Your task to perform on an android device: Go to Yahoo.com Image 0: 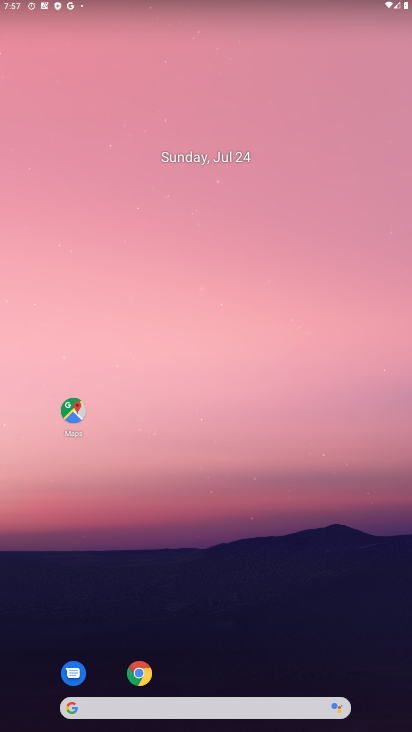
Step 0: drag from (27, 703) to (222, 65)
Your task to perform on an android device: Go to Yahoo.com Image 1: 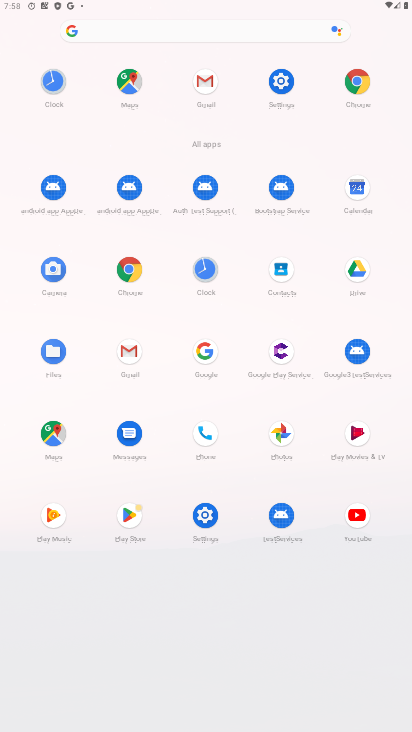
Step 1: click (142, 30)
Your task to perform on an android device: Go to Yahoo.com Image 2: 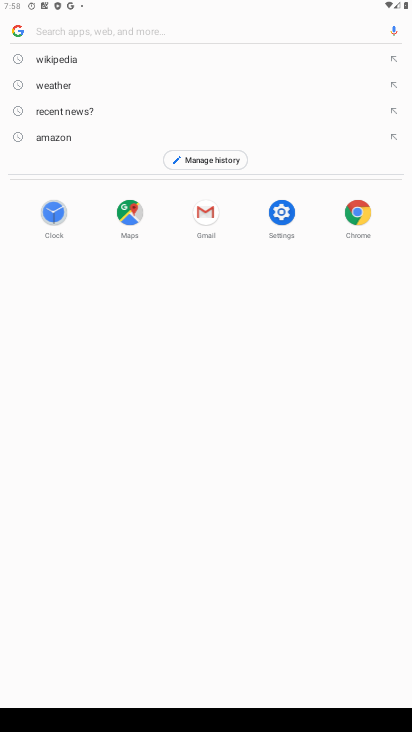
Step 2: type "Yahoo.com"
Your task to perform on an android device: Go to Yahoo.com Image 3: 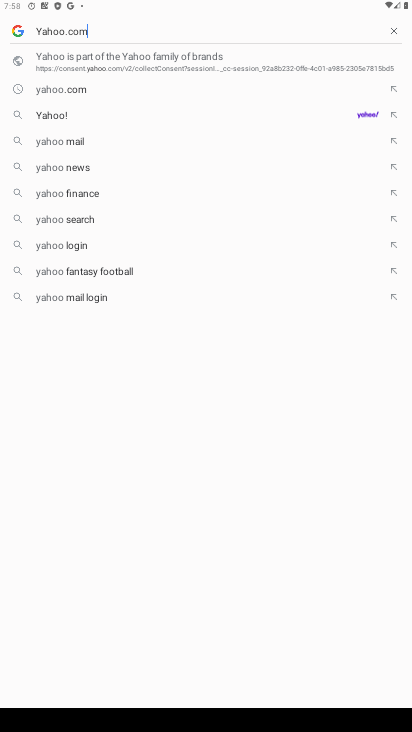
Step 3: type ""
Your task to perform on an android device: Go to Yahoo.com Image 4: 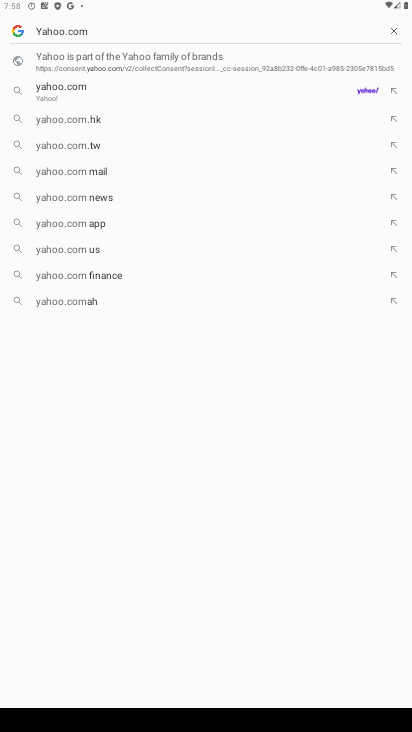
Step 4: click (68, 91)
Your task to perform on an android device: Go to Yahoo.com Image 5: 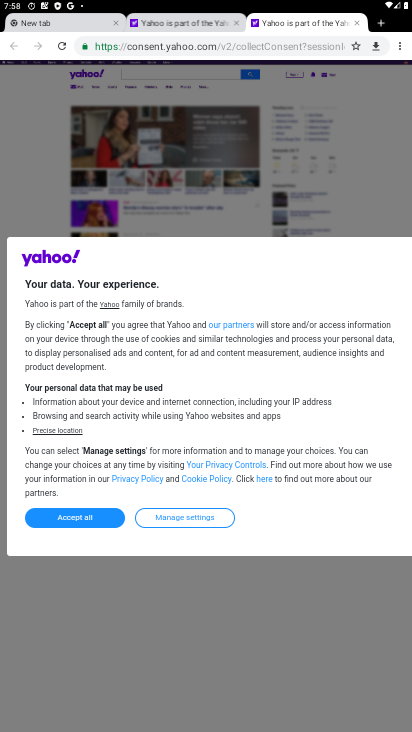
Step 5: task complete